Your task to perform on an android device: turn off location Image 0: 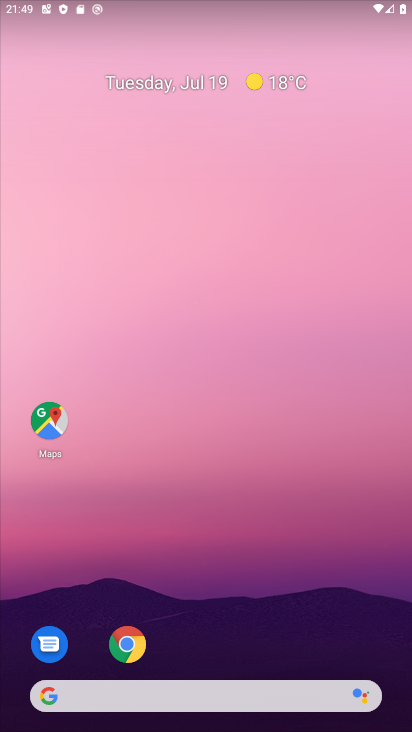
Step 0: drag from (203, 719) to (189, 151)
Your task to perform on an android device: turn off location Image 1: 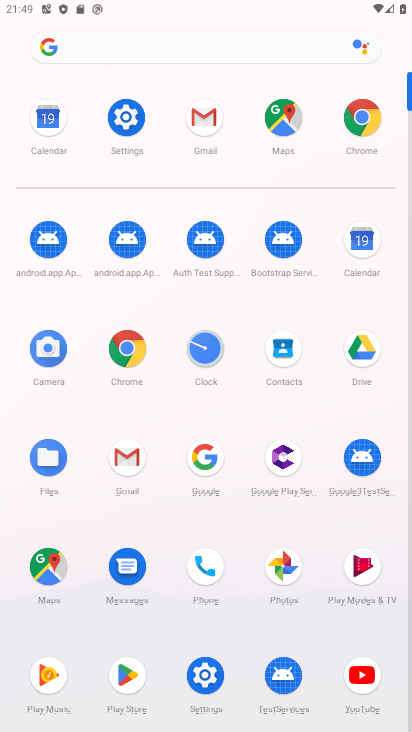
Step 1: click (121, 119)
Your task to perform on an android device: turn off location Image 2: 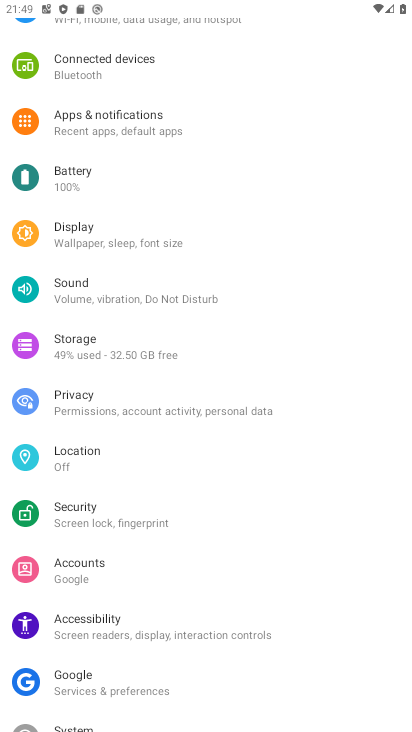
Step 2: click (72, 458)
Your task to perform on an android device: turn off location Image 3: 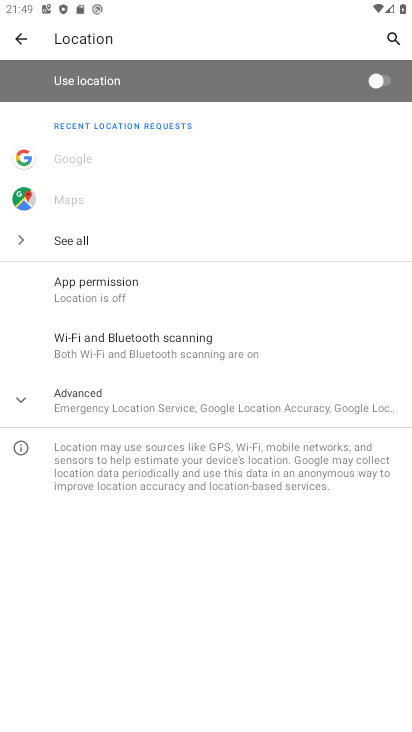
Step 3: task complete